Your task to perform on an android device: Go to Yahoo.com Image 0: 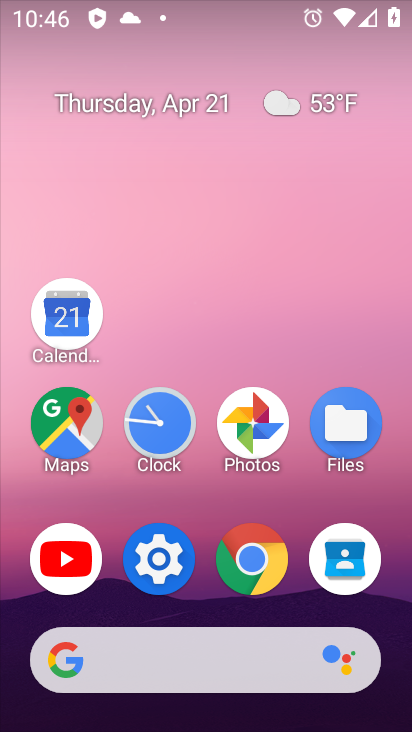
Step 0: click (256, 567)
Your task to perform on an android device: Go to Yahoo.com Image 1: 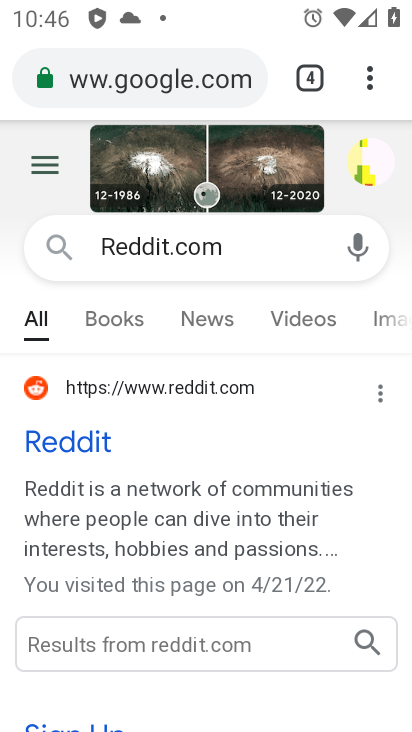
Step 1: click (370, 73)
Your task to perform on an android device: Go to Yahoo.com Image 2: 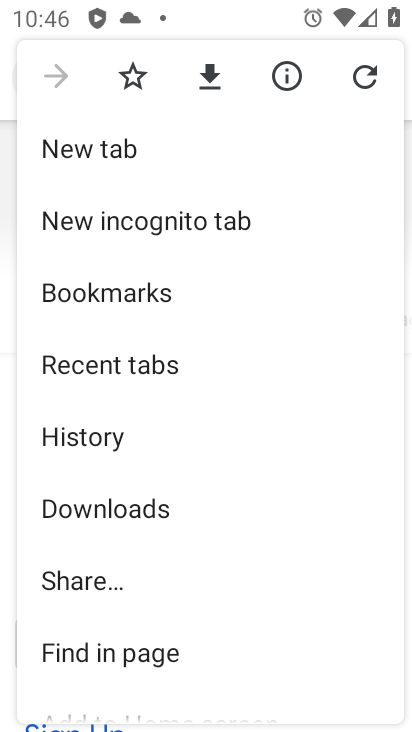
Step 2: click (104, 150)
Your task to perform on an android device: Go to Yahoo.com Image 3: 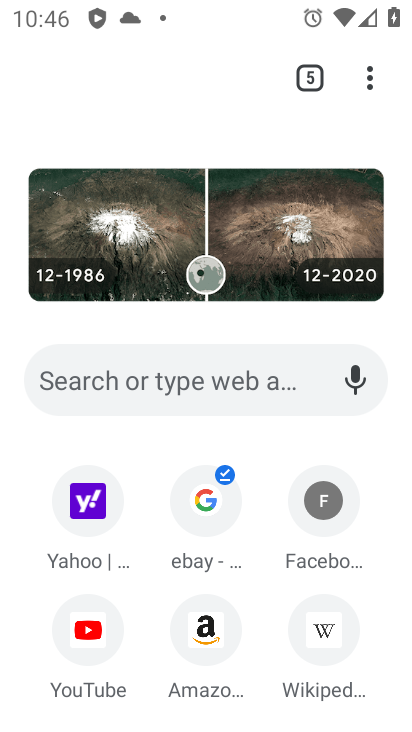
Step 3: click (70, 498)
Your task to perform on an android device: Go to Yahoo.com Image 4: 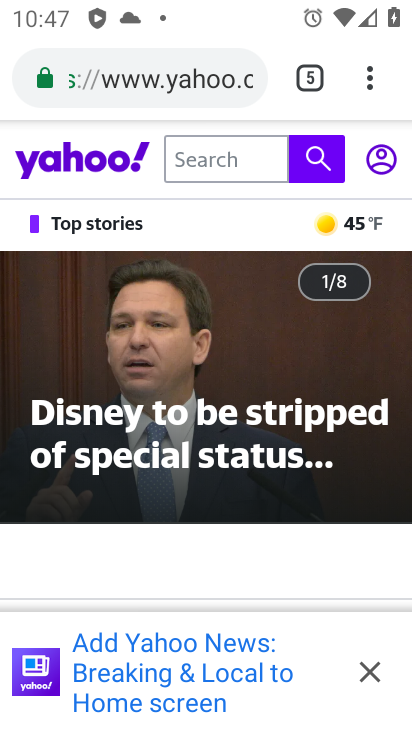
Step 4: task complete